Your task to perform on an android device: delete location history Image 0: 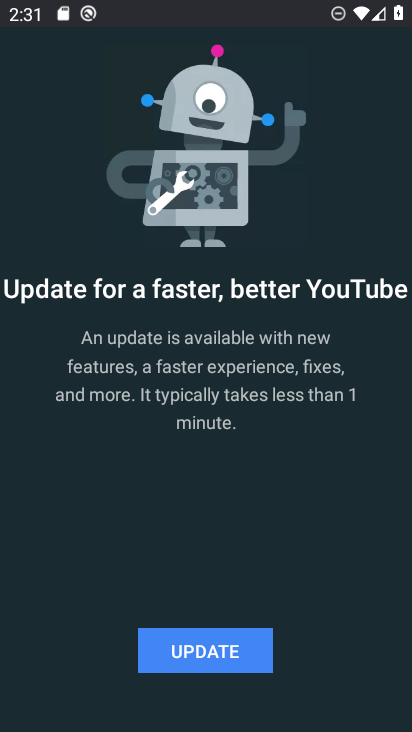
Step 0: press home button
Your task to perform on an android device: delete location history Image 1: 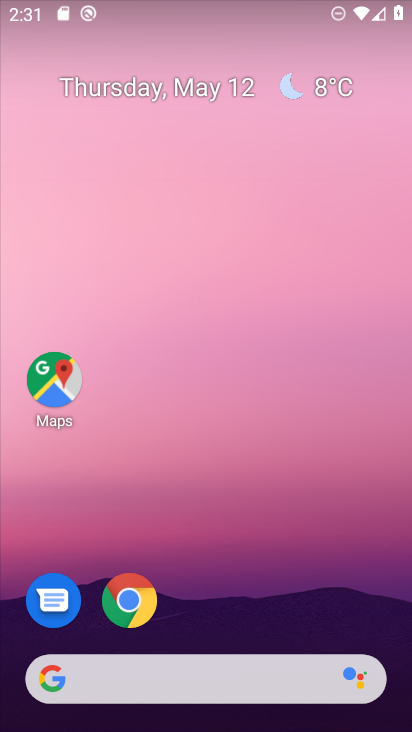
Step 1: drag from (225, 728) to (222, 355)
Your task to perform on an android device: delete location history Image 2: 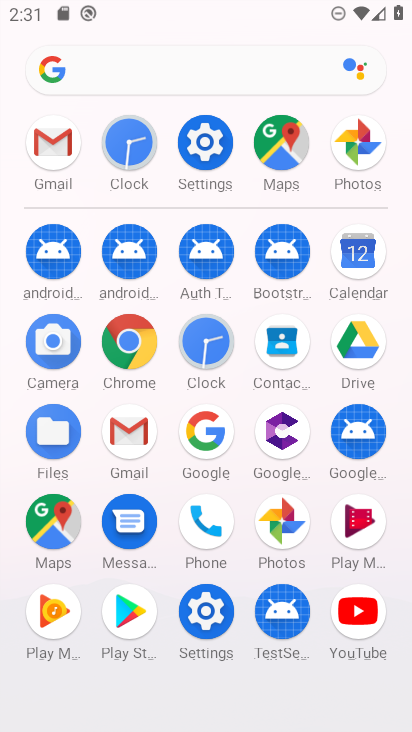
Step 2: click (55, 521)
Your task to perform on an android device: delete location history Image 3: 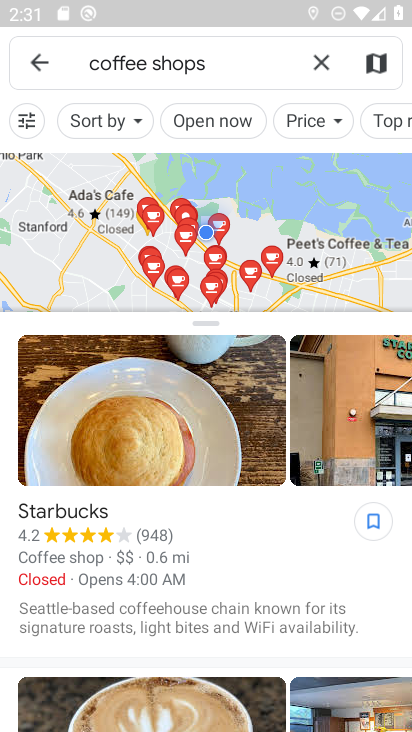
Step 3: click (40, 60)
Your task to perform on an android device: delete location history Image 4: 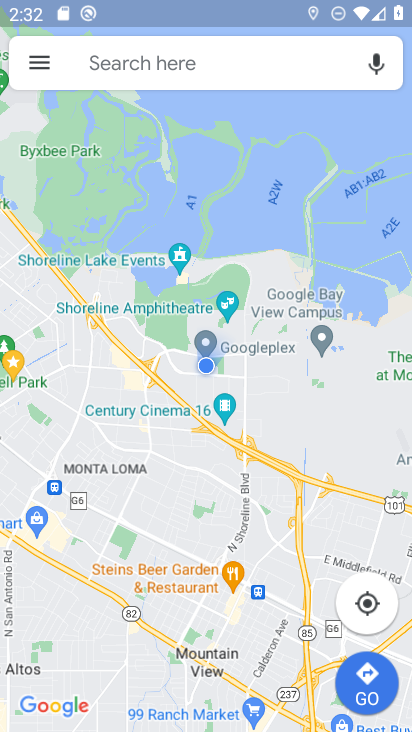
Step 4: click (38, 59)
Your task to perform on an android device: delete location history Image 5: 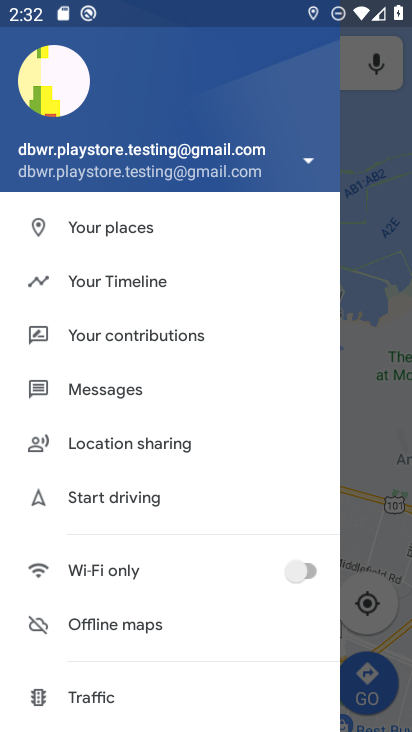
Step 5: drag from (92, 611) to (89, 169)
Your task to perform on an android device: delete location history Image 6: 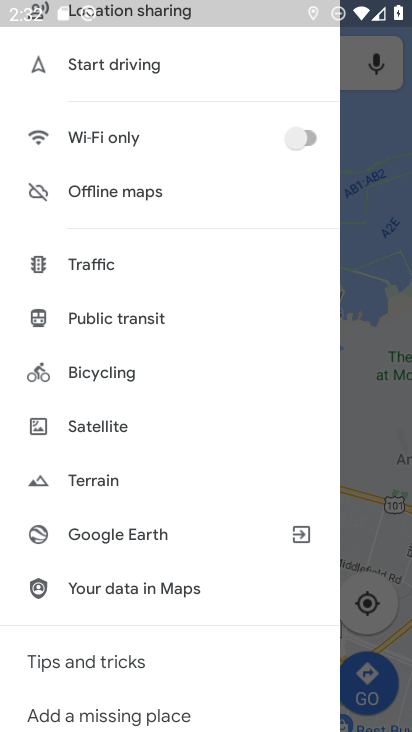
Step 6: drag from (146, 91) to (166, 480)
Your task to perform on an android device: delete location history Image 7: 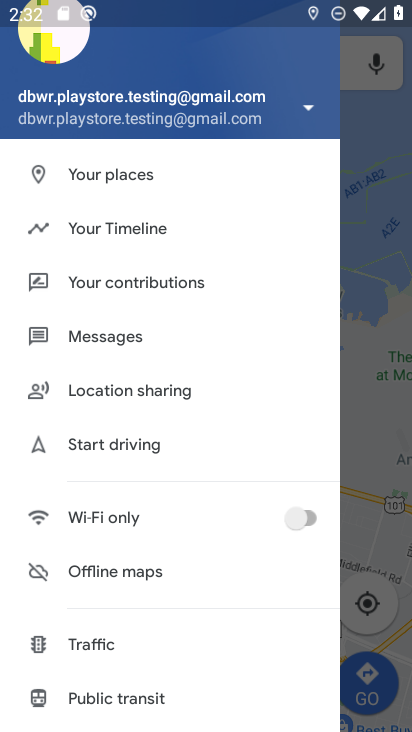
Step 7: click (123, 228)
Your task to perform on an android device: delete location history Image 8: 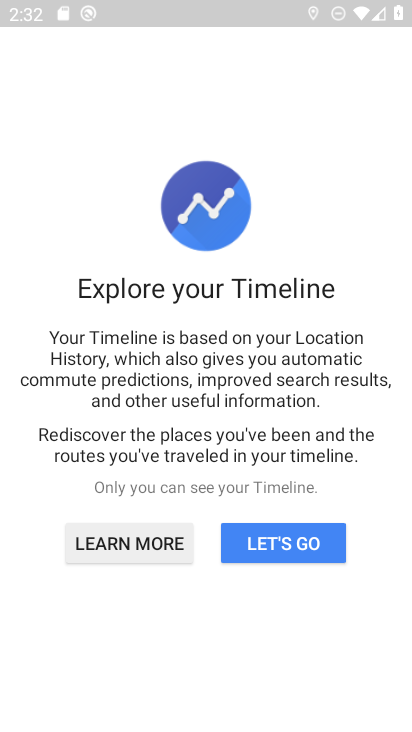
Step 8: click (273, 540)
Your task to perform on an android device: delete location history Image 9: 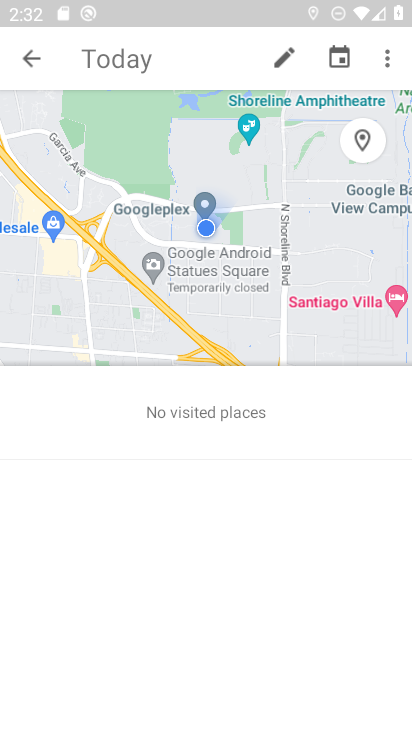
Step 9: click (386, 63)
Your task to perform on an android device: delete location history Image 10: 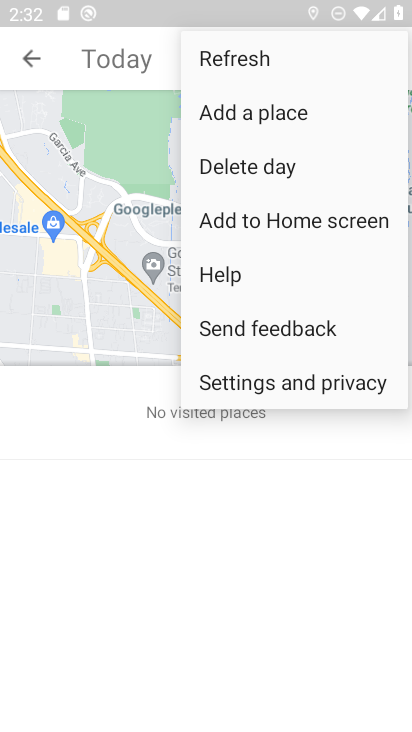
Step 10: click (278, 383)
Your task to perform on an android device: delete location history Image 11: 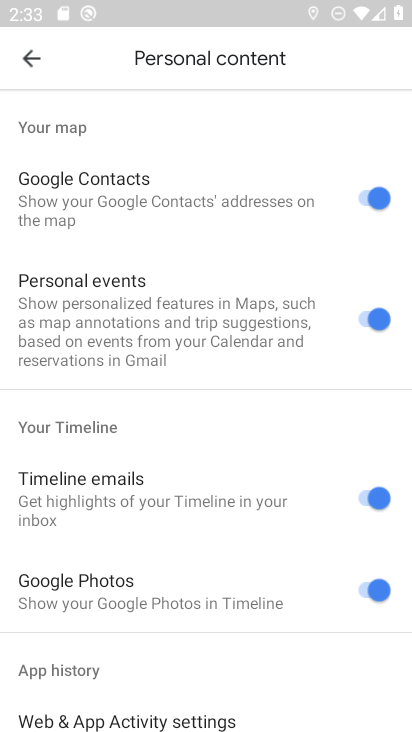
Step 11: drag from (118, 652) to (103, 278)
Your task to perform on an android device: delete location history Image 12: 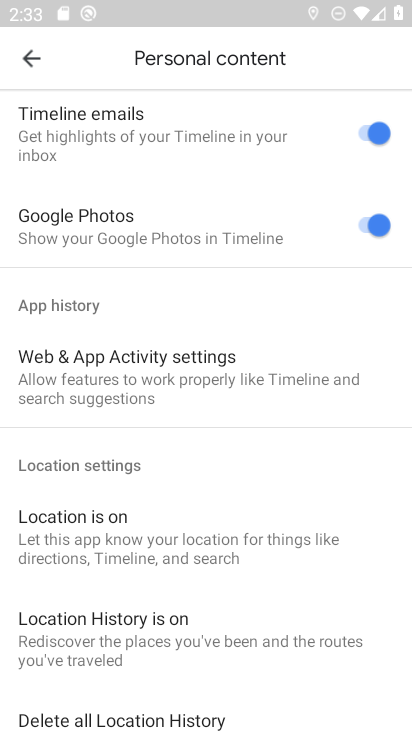
Step 12: drag from (127, 664) to (119, 270)
Your task to perform on an android device: delete location history Image 13: 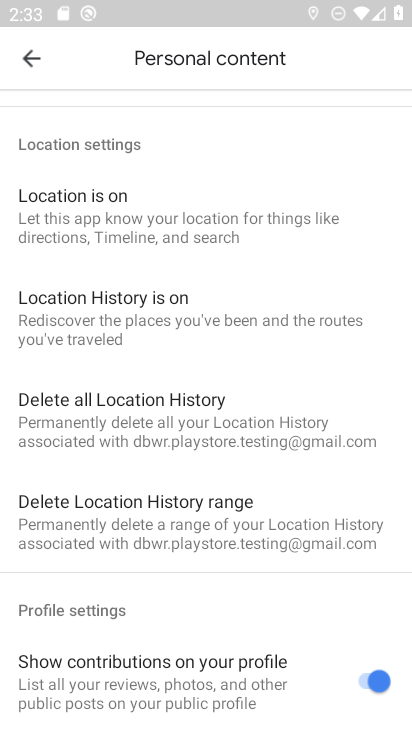
Step 13: click (141, 408)
Your task to perform on an android device: delete location history Image 14: 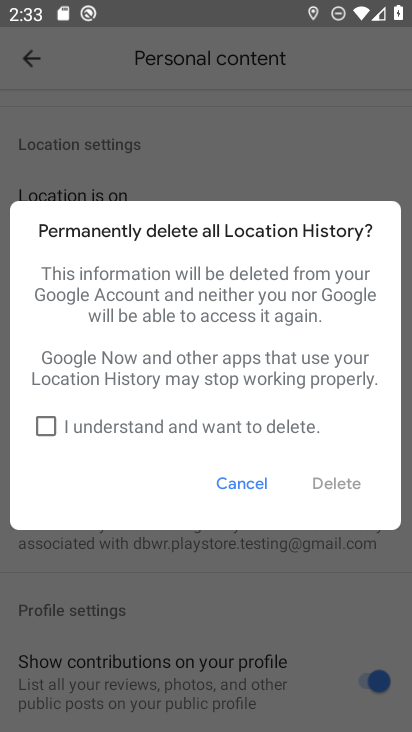
Step 14: click (49, 423)
Your task to perform on an android device: delete location history Image 15: 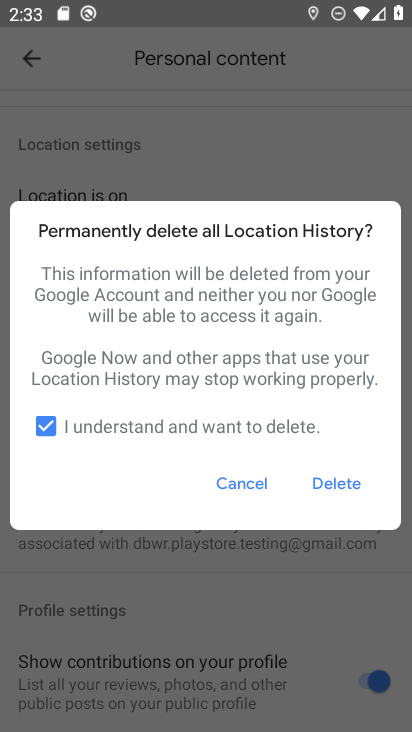
Step 15: click (345, 479)
Your task to perform on an android device: delete location history Image 16: 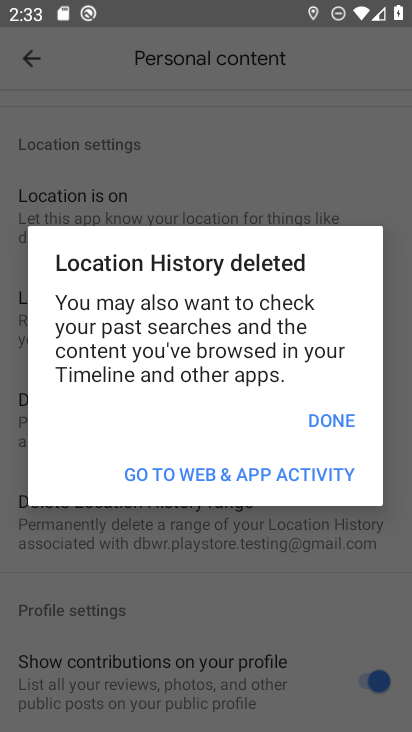
Step 16: click (332, 416)
Your task to perform on an android device: delete location history Image 17: 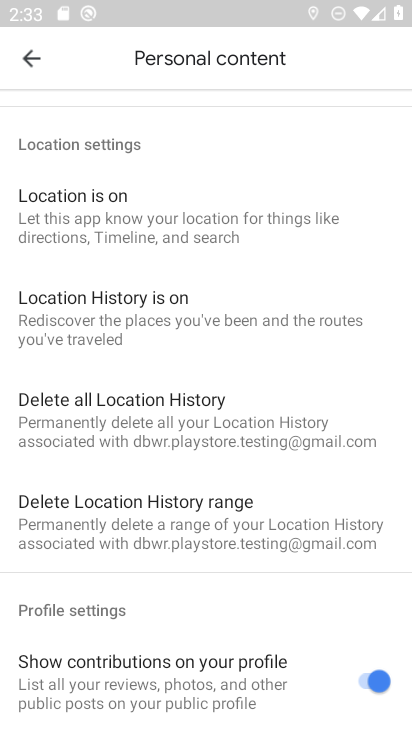
Step 17: task complete